Your task to perform on an android device: turn off javascript in the chrome app Image 0: 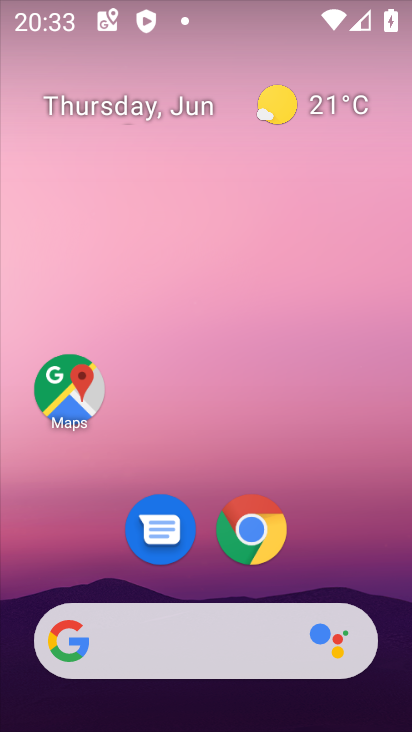
Step 0: click (250, 538)
Your task to perform on an android device: turn off javascript in the chrome app Image 1: 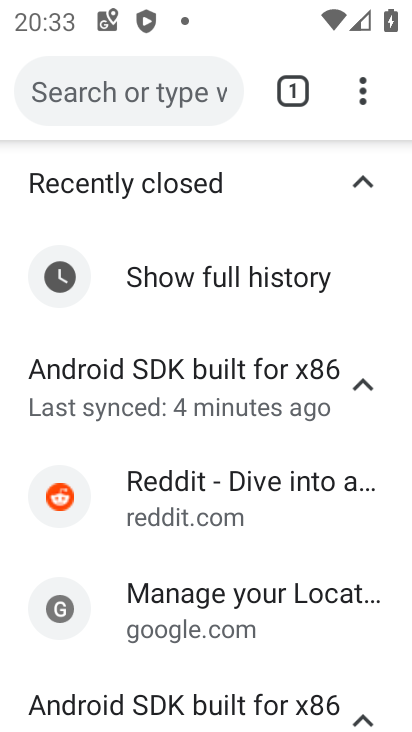
Step 1: click (359, 95)
Your task to perform on an android device: turn off javascript in the chrome app Image 2: 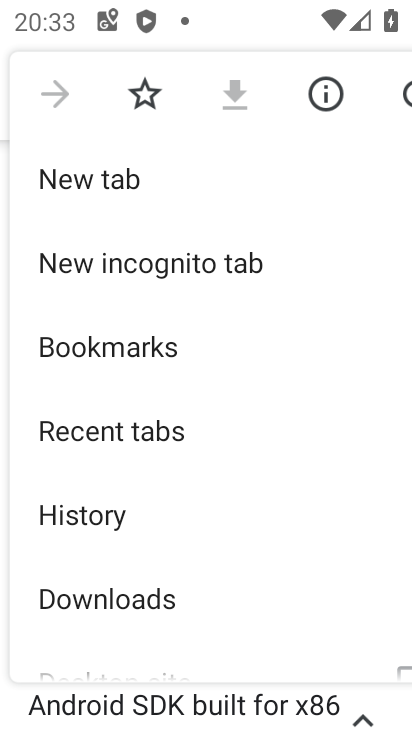
Step 2: drag from (217, 579) to (221, 273)
Your task to perform on an android device: turn off javascript in the chrome app Image 3: 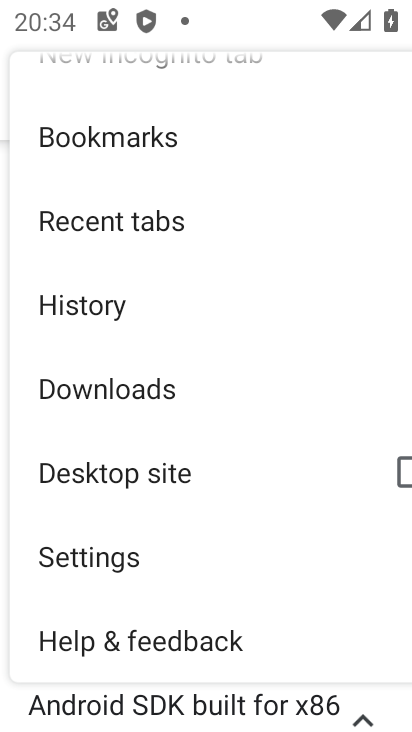
Step 3: click (97, 553)
Your task to perform on an android device: turn off javascript in the chrome app Image 4: 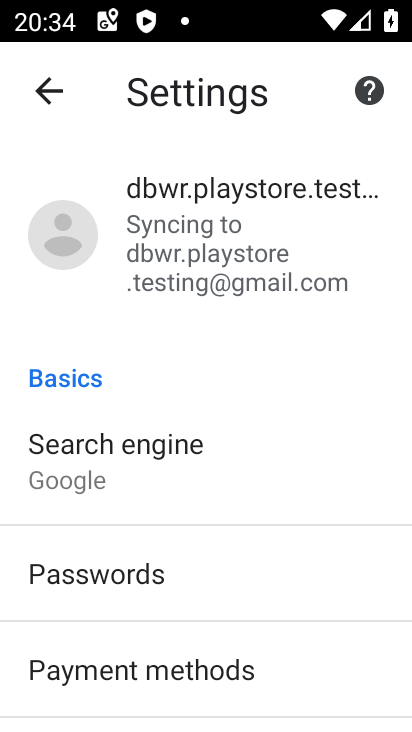
Step 4: drag from (204, 525) to (188, 212)
Your task to perform on an android device: turn off javascript in the chrome app Image 5: 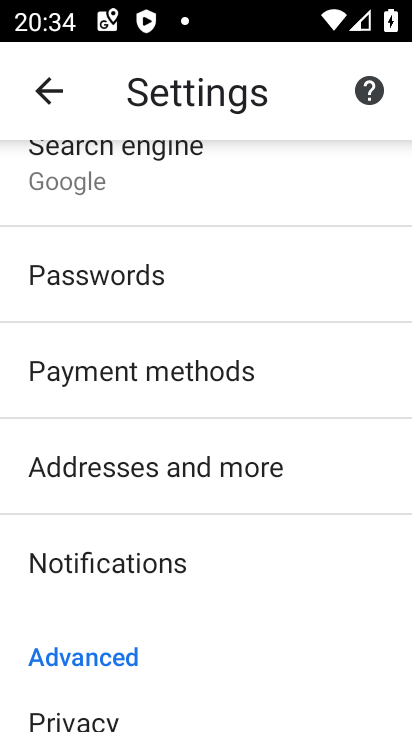
Step 5: drag from (196, 665) to (179, 322)
Your task to perform on an android device: turn off javascript in the chrome app Image 6: 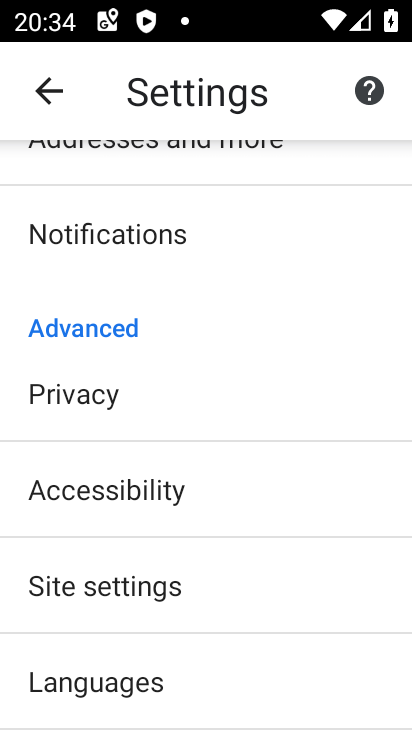
Step 6: drag from (246, 571) to (225, 354)
Your task to perform on an android device: turn off javascript in the chrome app Image 7: 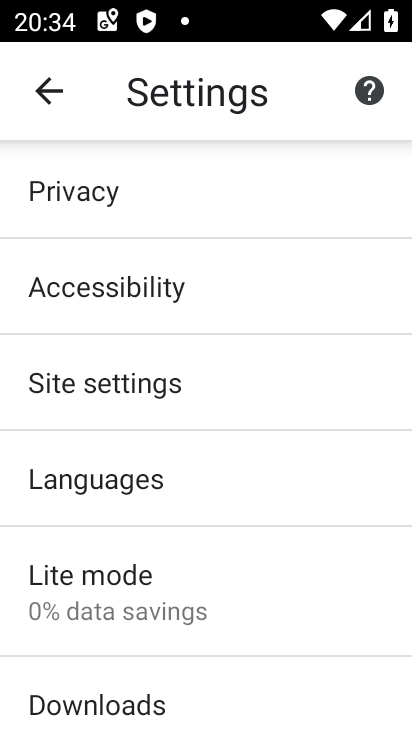
Step 7: click (113, 378)
Your task to perform on an android device: turn off javascript in the chrome app Image 8: 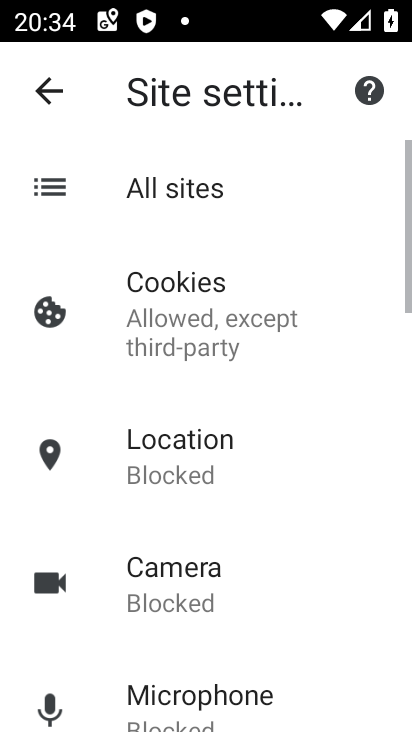
Step 8: drag from (293, 564) to (279, 268)
Your task to perform on an android device: turn off javascript in the chrome app Image 9: 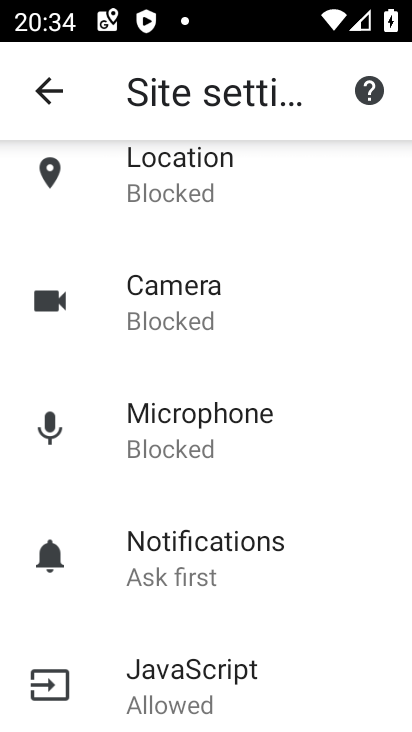
Step 9: drag from (274, 606) to (274, 287)
Your task to perform on an android device: turn off javascript in the chrome app Image 10: 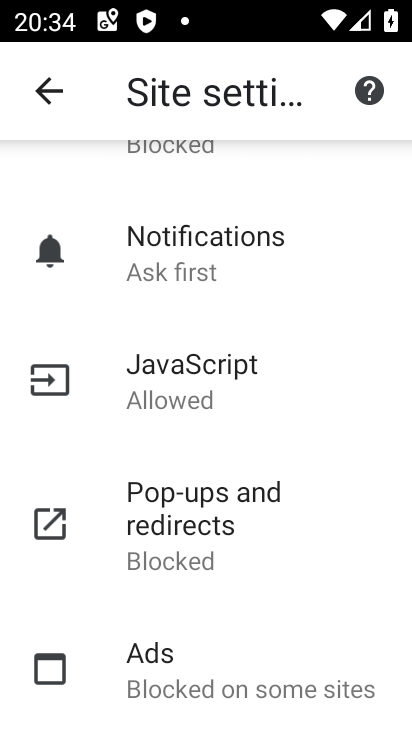
Step 10: click (159, 371)
Your task to perform on an android device: turn off javascript in the chrome app Image 11: 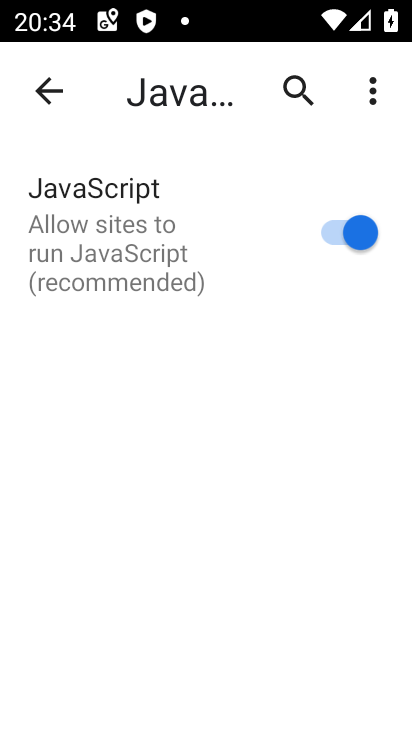
Step 11: click (342, 228)
Your task to perform on an android device: turn off javascript in the chrome app Image 12: 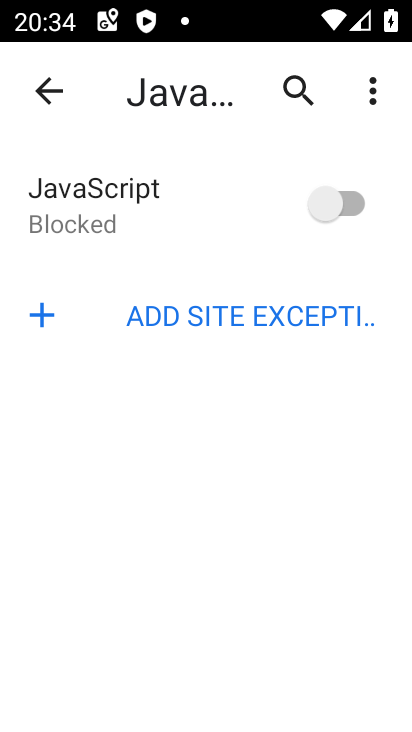
Step 12: task complete